Your task to perform on an android device: delete a single message in the gmail app Image 0: 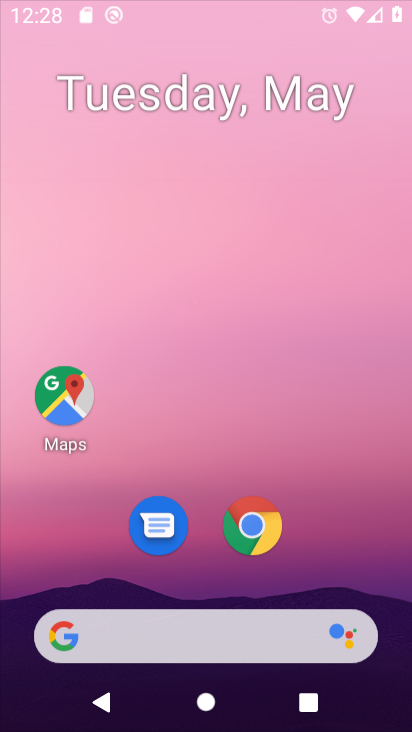
Step 0: click (204, 25)
Your task to perform on an android device: delete a single message in the gmail app Image 1: 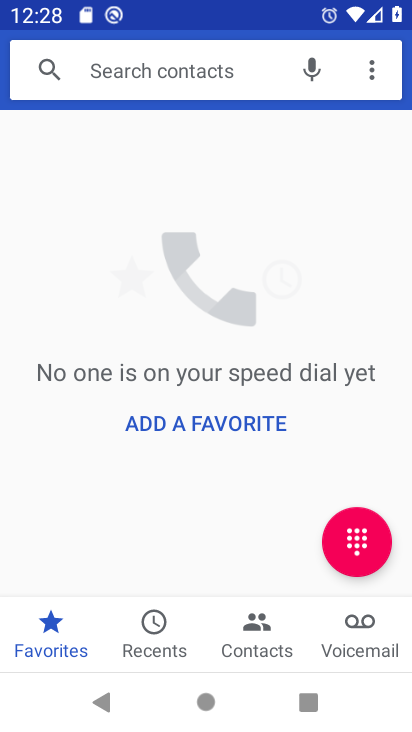
Step 1: press home button
Your task to perform on an android device: delete a single message in the gmail app Image 2: 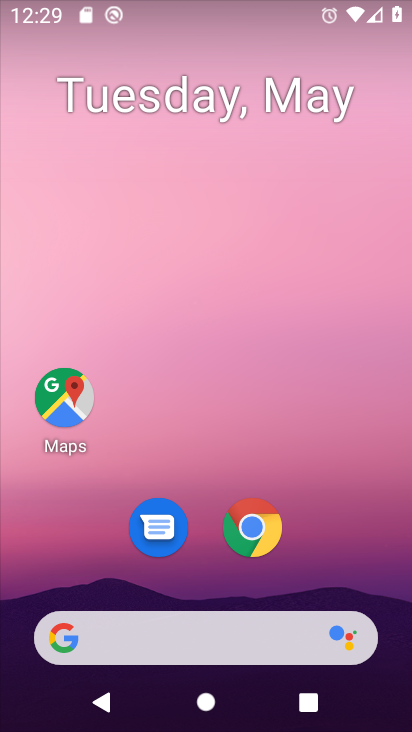
Step 2: drag from (239, 648) to (167, 87)
Your task to perform on an android device: delete a single message in the gmail app Image 3: 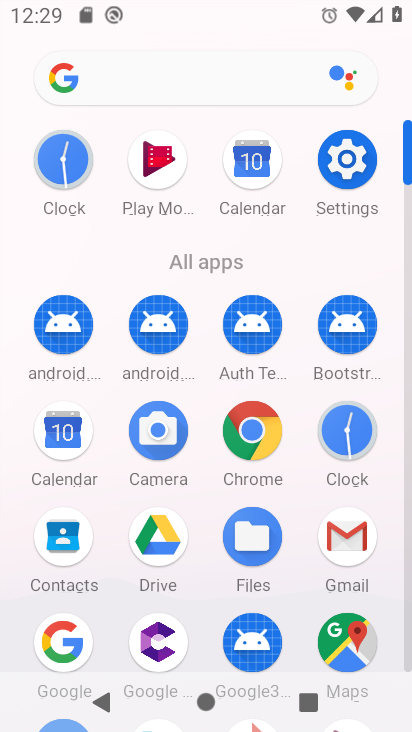
Step 3: click (355, 524)
Your task to perform on an android device: delete a single message in the gmail app Image 4: 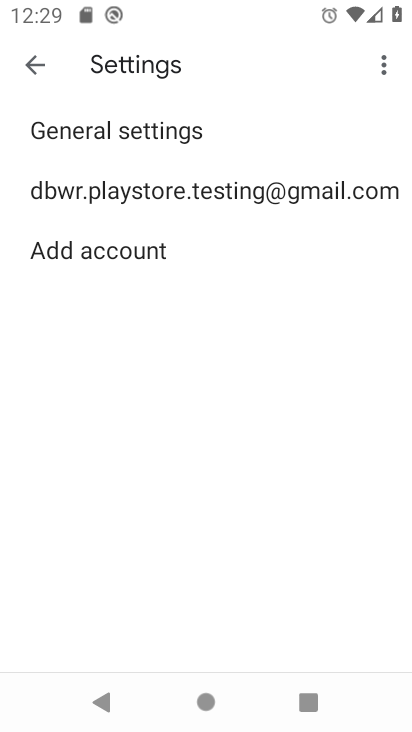
Step 4: click (37, 65)
Your task to perform on an android device: delete a single message in the gmail app Image 5: 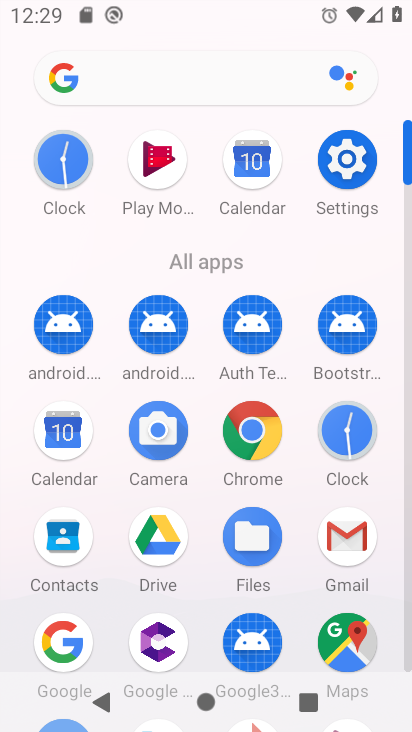
Step 5: click (353, 526)
Your task to perform on an android device: delete a single message in the gmail app Image 6: 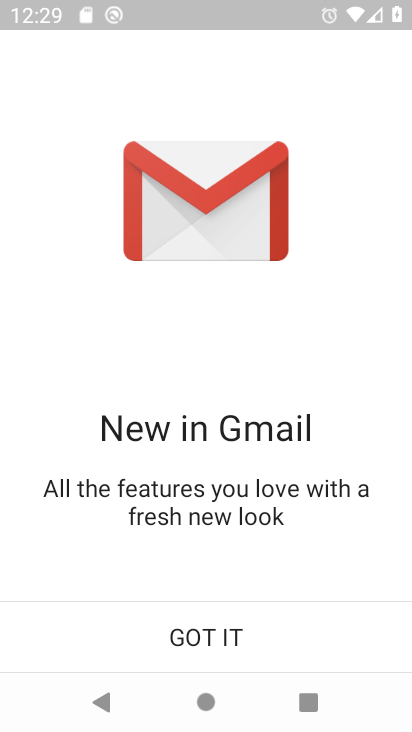
Step 6: click (282, 632)
Your task to perform on an android device: delete a single message in the gmail app Image 7: 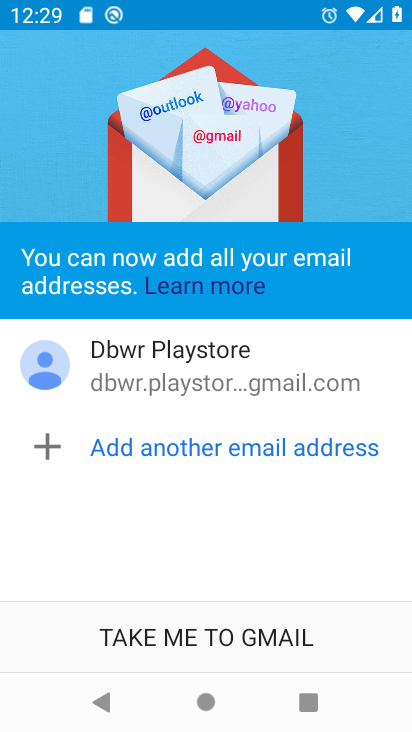
Step 7: click (266, 642)
Your task to perform on an android device: delete a single message in the gmail app Image 8: 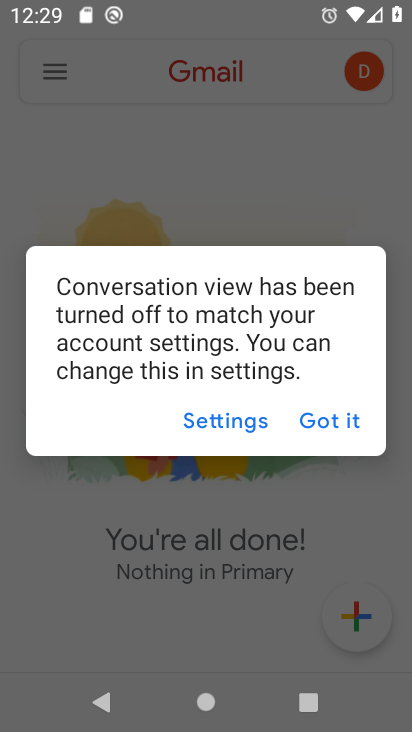
Step 8: click (328, 426)
Your task to perform on an android device: delete a single message in the gmail app Image 9: 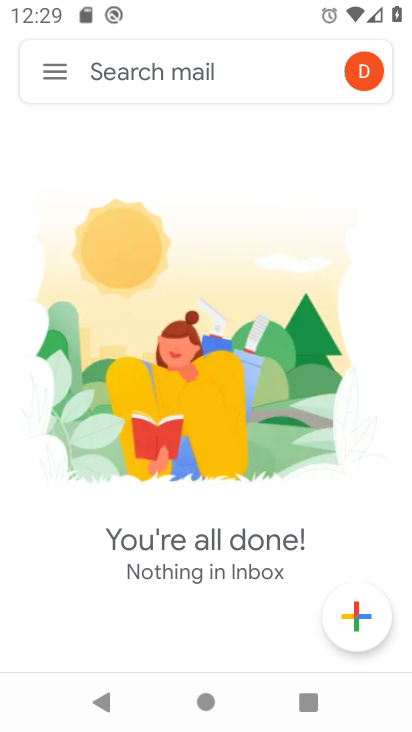
Step 9: task complete